Your task to perform on an android device: turn on airplane mode Image 0: 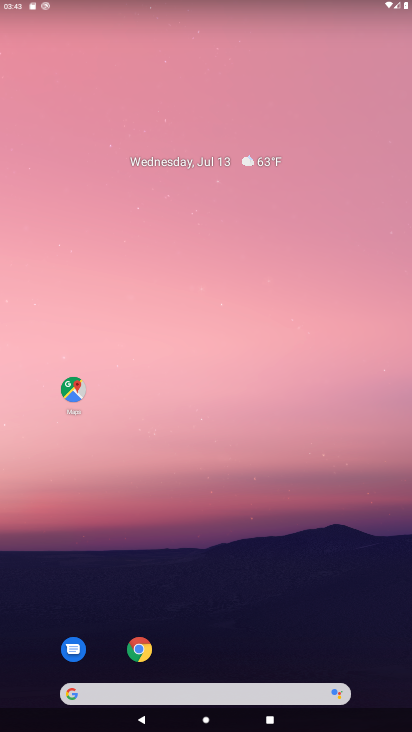
Step 0: drag from (272, 644) to (326, 4)
Your task to perform on an android device: turn on airplane mode Image 1: 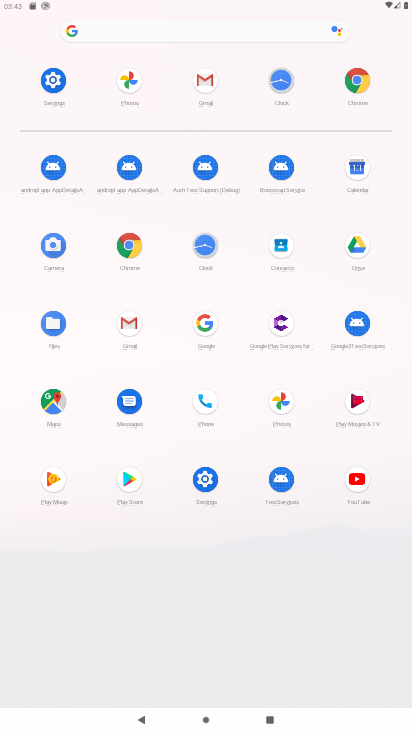
Step 1: click (55, 80)
Your task to perform on an android device: turn on airplane mode Image 2: 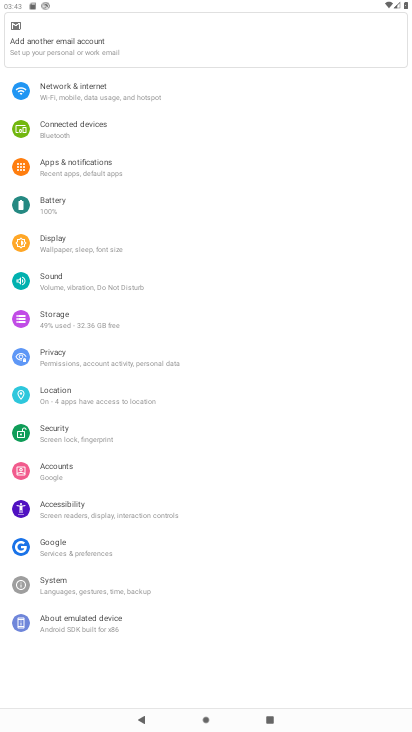
Step 2: click (128, 96)
Your task to perform on an android device: turn on airplane mode Image 3: 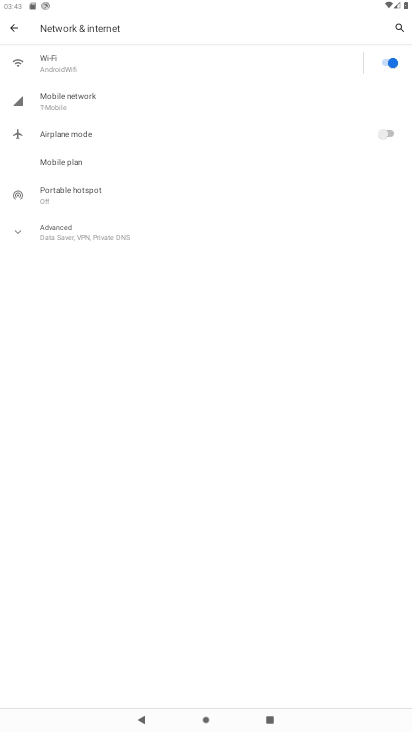
Step 3: click (395, 132)
Your task to perform on an android device: turn on airplane mode Image 4: 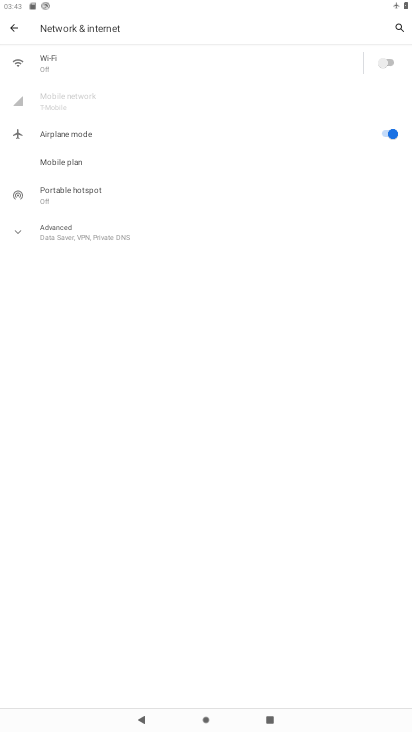
Step 4: task complete